Your task to perform on an android device: change the clock style Image 0: 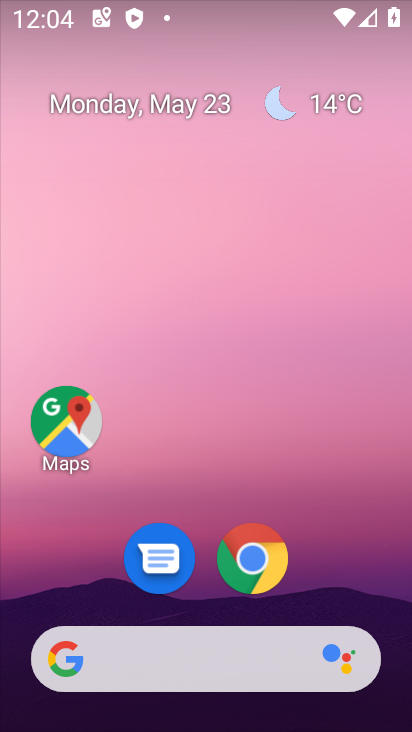
Step 0: drag from (347, 612) to (377, 2)
Your task to perform on an android device: change the clock style Image 1: 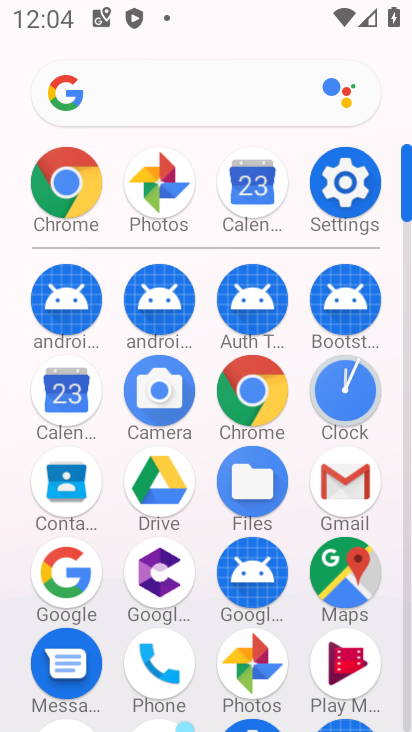
Step 1: click (348, 396)
Your task to perform on an android device: change the clock style Image 2: 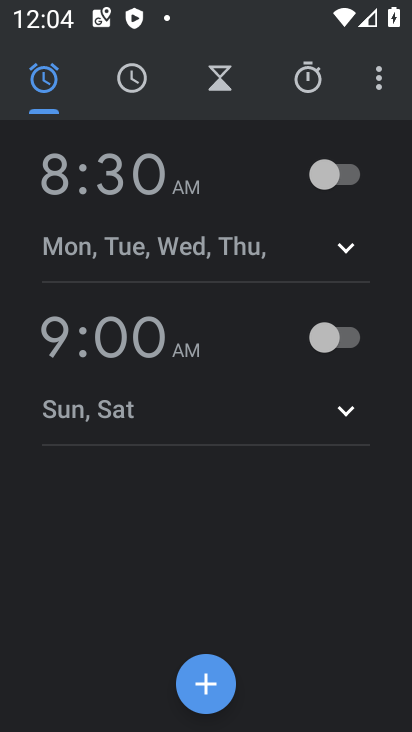
Step 2: click (378, 83)
Your task to perform on an android device: change the clock style Image 3: 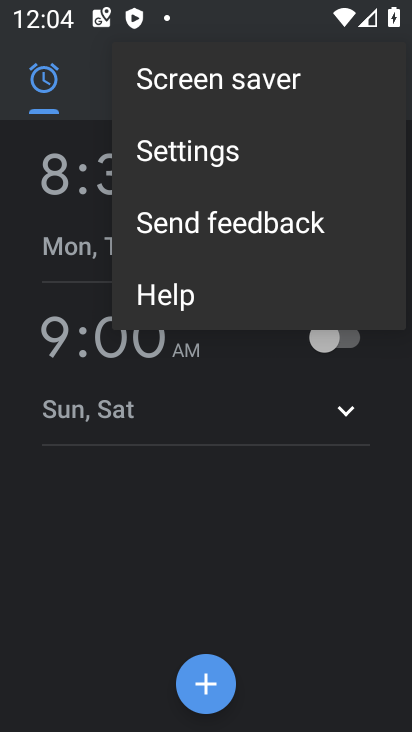
Step 3: click (218, 159)
Your task to perform on an android device: change the clock style Image 4: 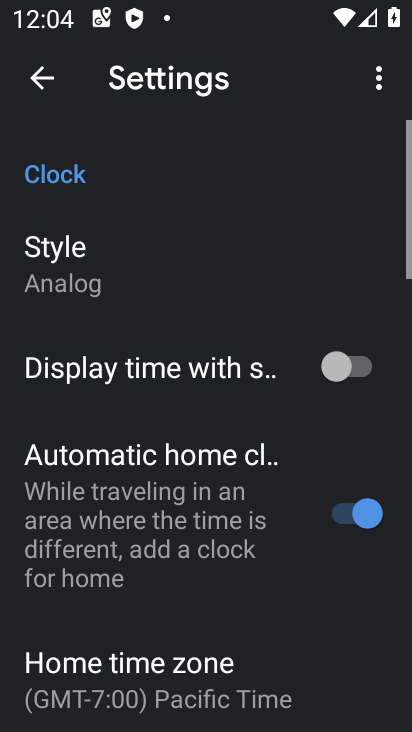
Step 4: click (72, 278)
Your task to perform on an android device: change the clock style Image 5: 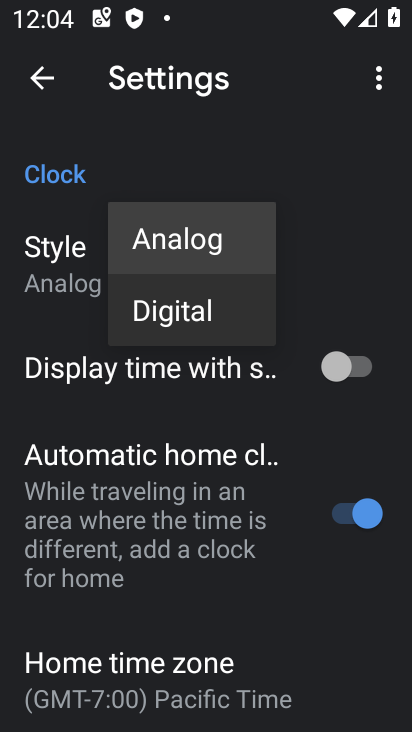
Step 5: click (149, 315)
Your task to perform on an android device: change the clock style Image 6: 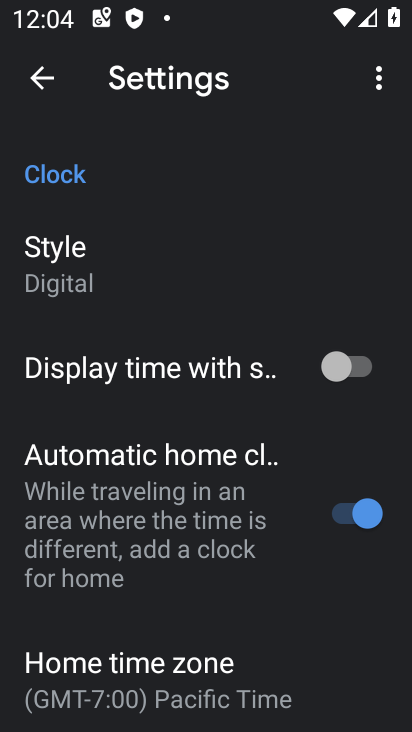
Step 6: task complete